Your task to perform on an android device: View the shopping cart on target.com. Add usb-c to usb-a to the cart on target.com, then select checkout. Image 0: 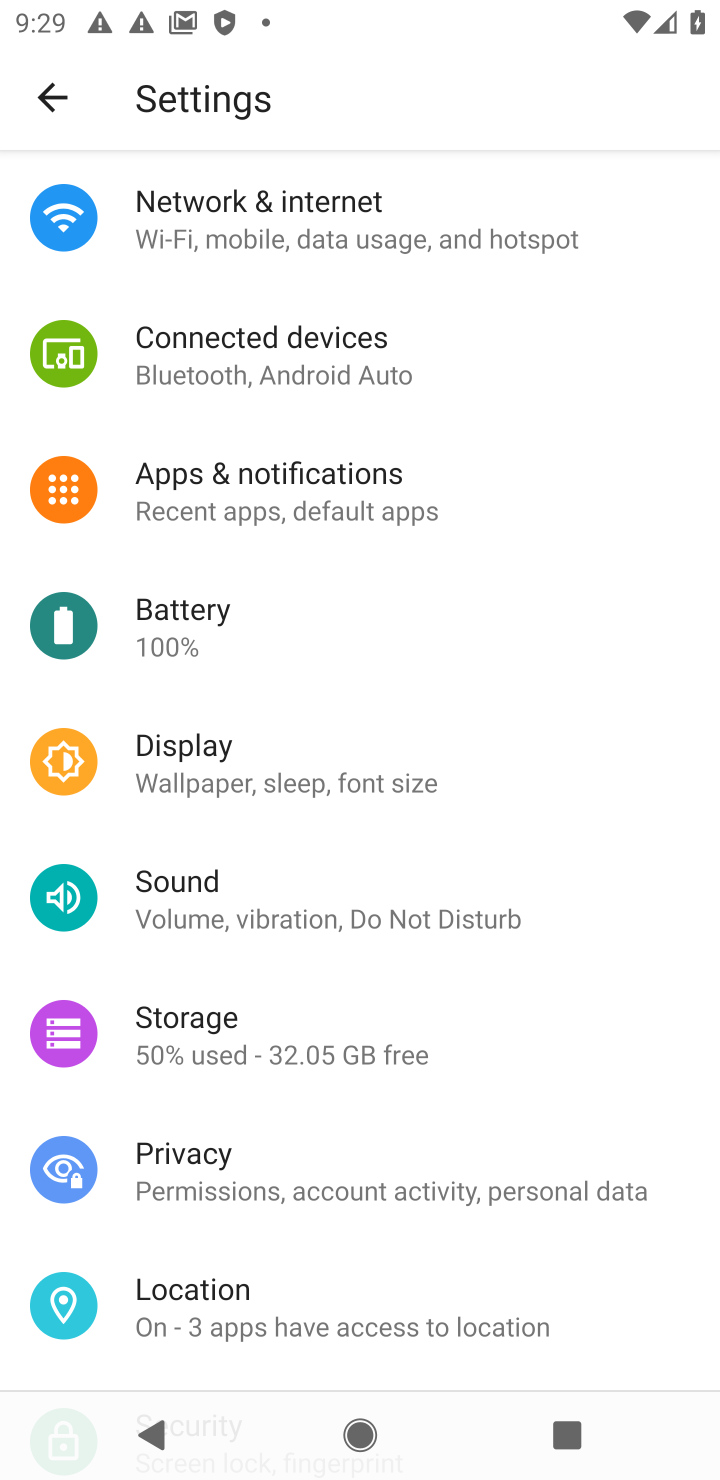
Step 0: press home button
Your task to perform on an android device: View the shopping cart on target.com. Add usb-c to usb-a to the cart on target.com, then select checkout. Image 1: 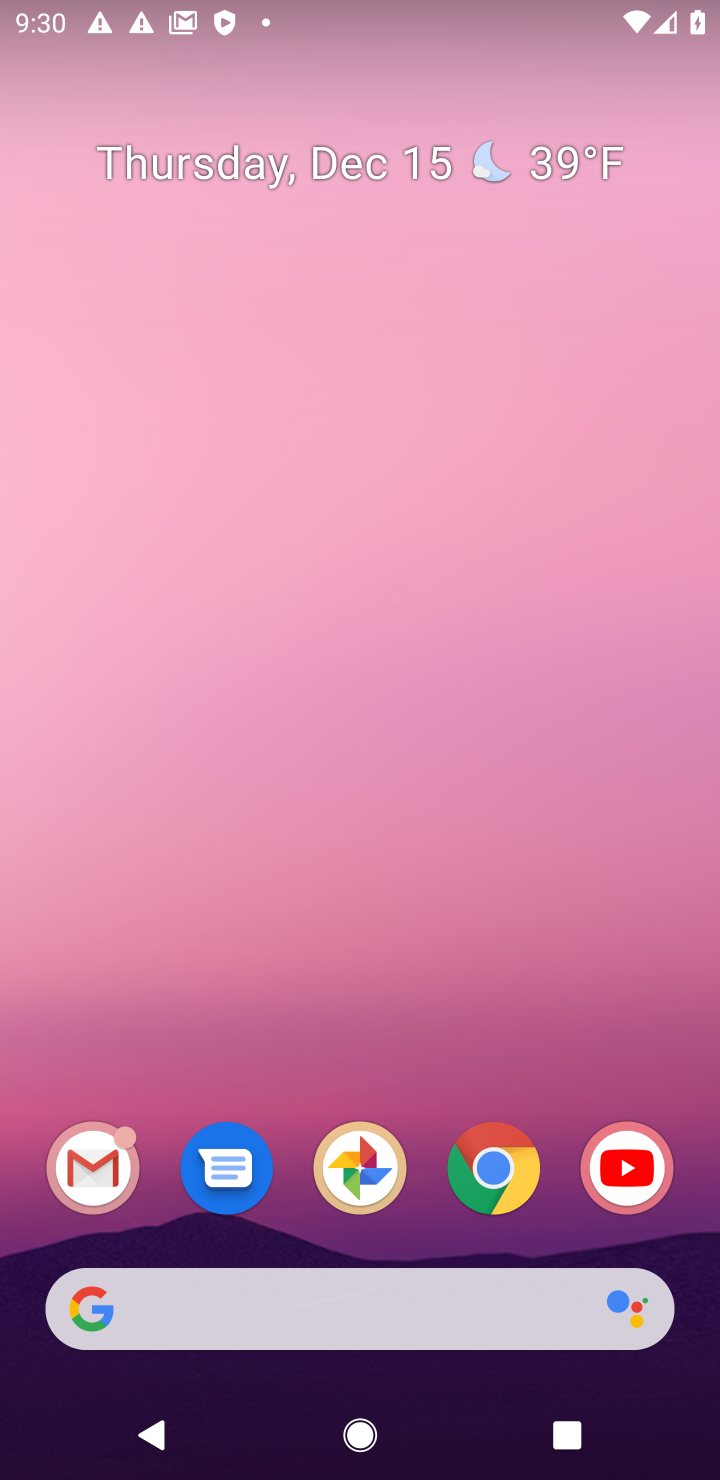
Step 1: click (519, 1159)
Your task to perform on an android device: View the shopping cart on target.com. Add usb-c to usb-a to the cart on target.com, then select checkout. Image 2: 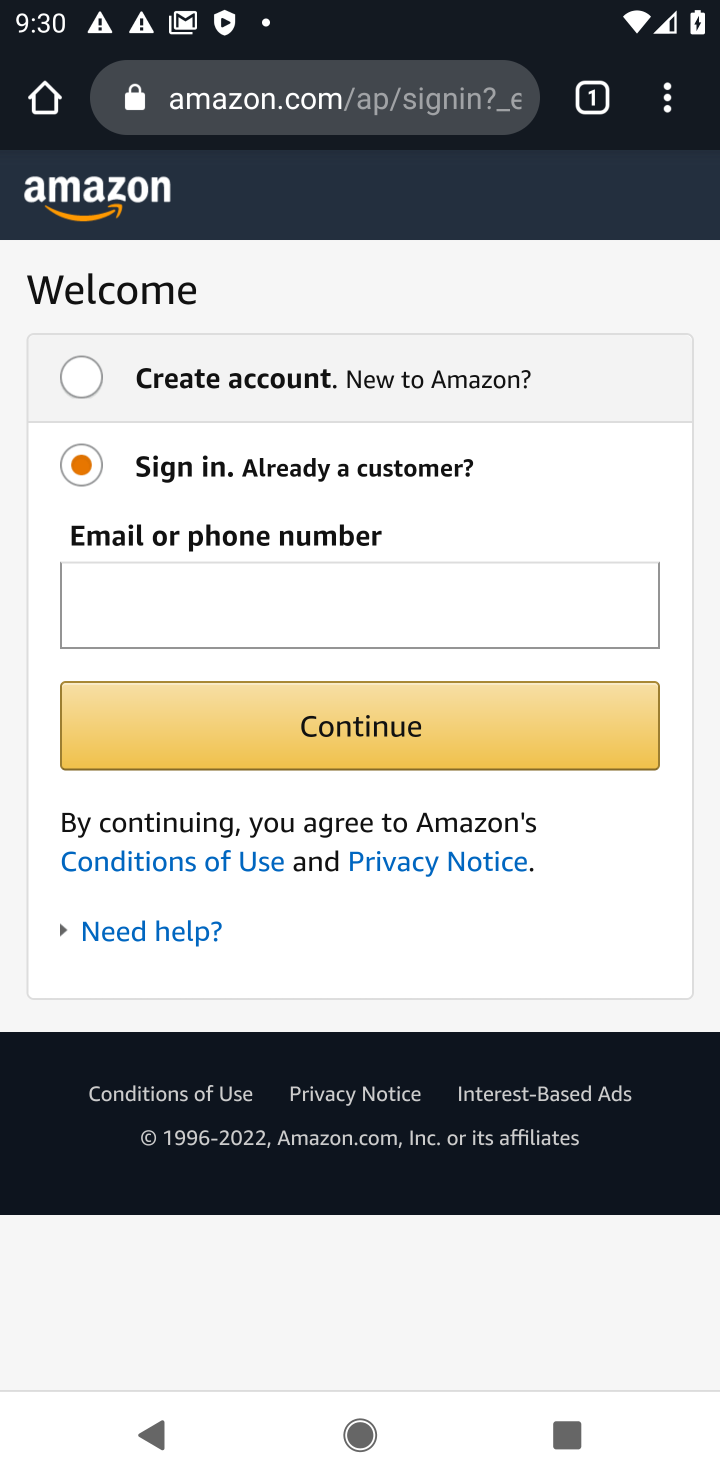
Step 2: click (393, 79)
Your task to perform on an android device: View the shopping cart on target.com. Add usb-c to usb-a to the cart on target.com, then select checkout. Image 3: 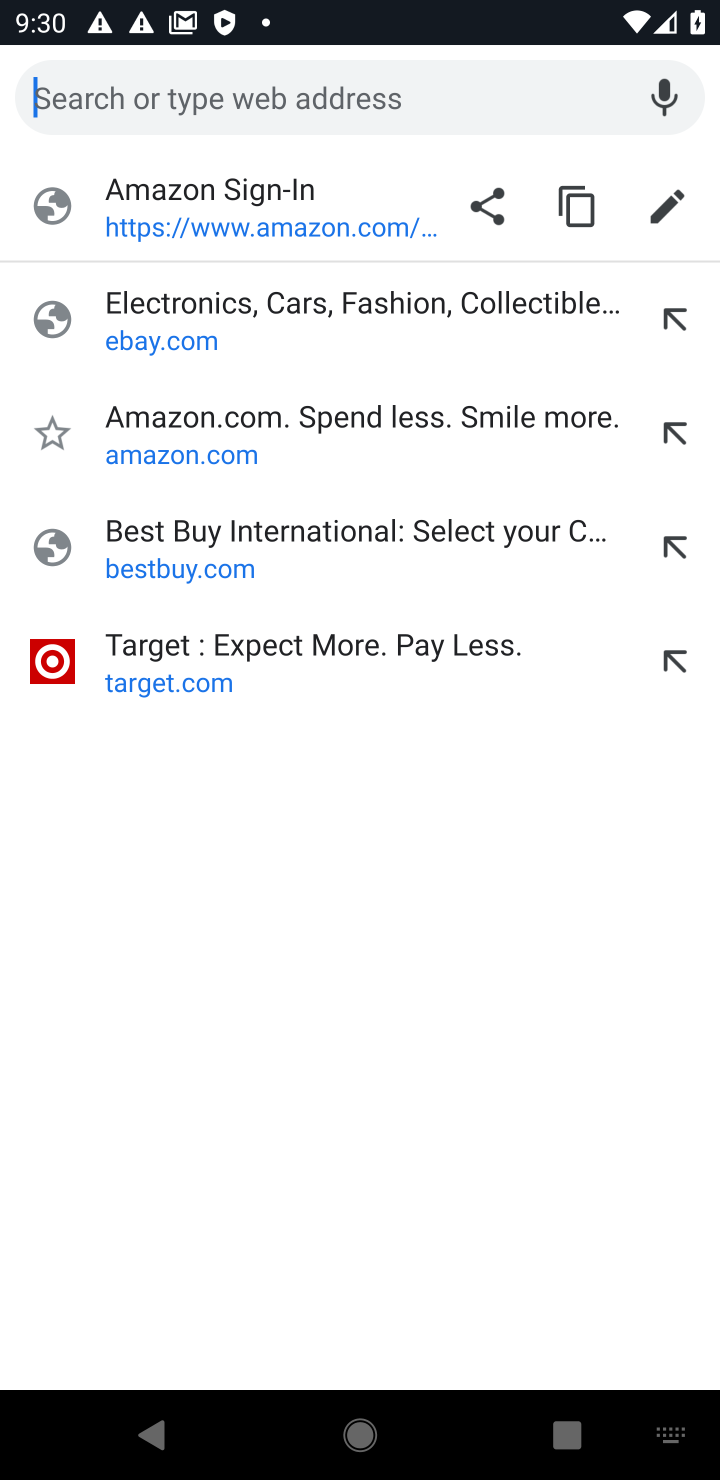
Step 3: click (325, 653)
Your task to perform on an android device: View the shopping cart on target.com. Add usb-c to usb-a to the cart on target.com, then select checkout. Image 4: 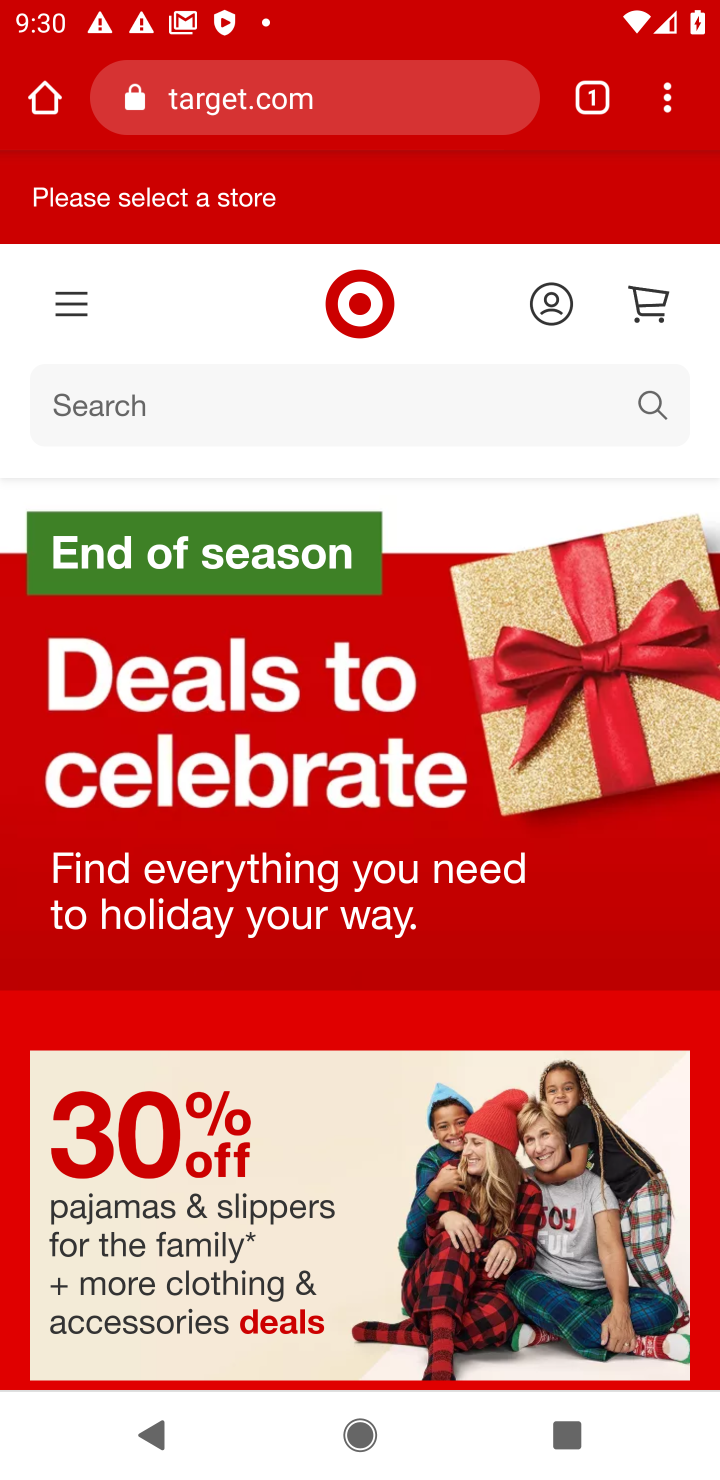
Step 4: click (379, 420)
Your task to perform on an android device: View the shopping cart on target.com. Add usb-c to usb-a to the cart on target.com, then select checkout. Image 5: 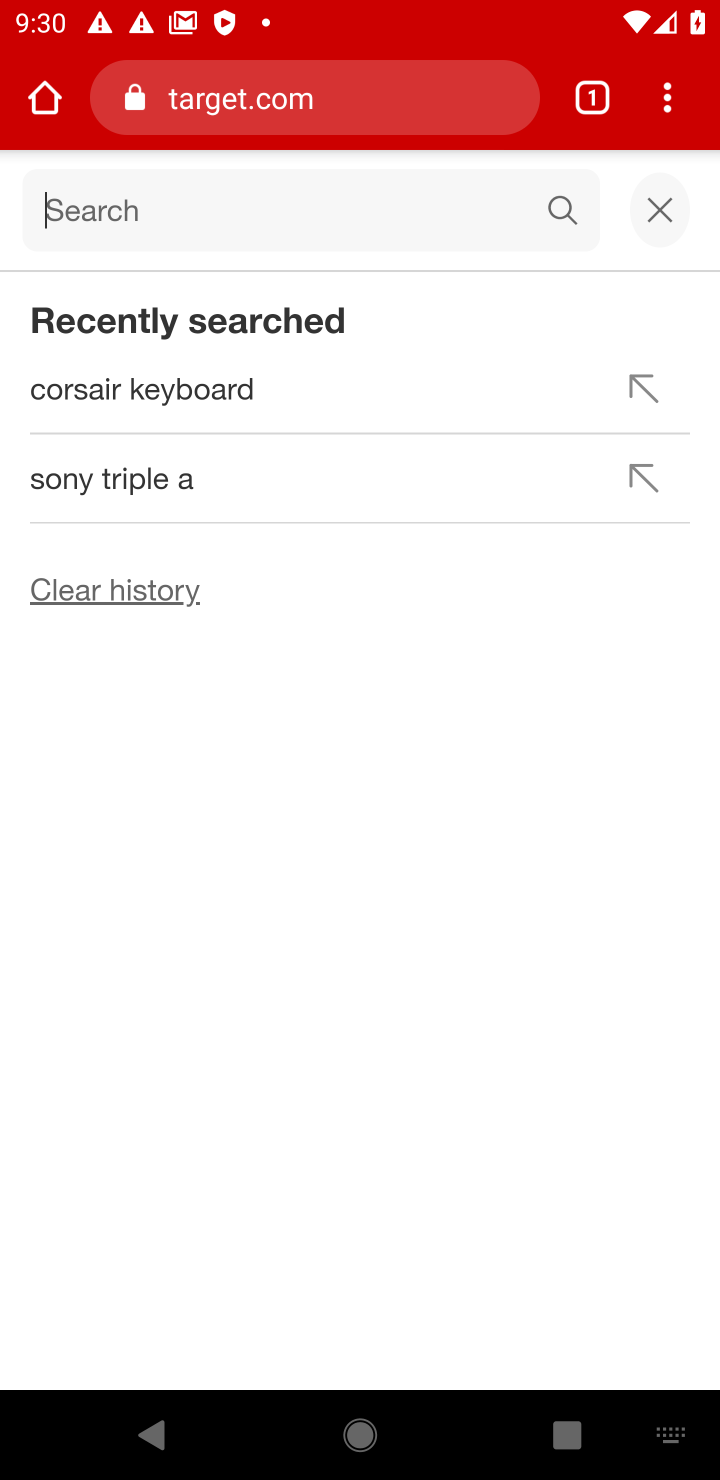
Step 5: type "usb-c to usb-a "
Your task to perform on an android device: View the shopping cart on target.com. Add usb-c to usb-a to the cart on target.com, then select checkout. Image 6: 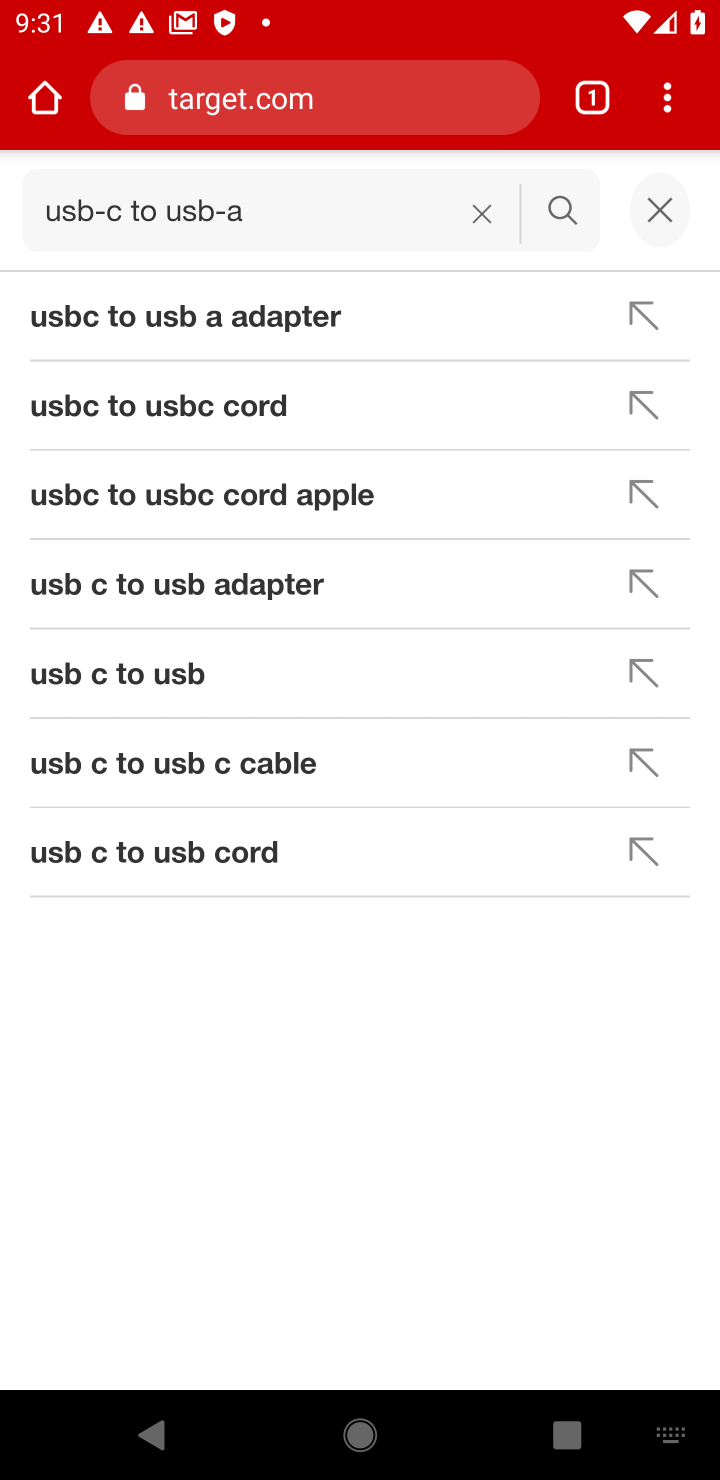
Step 6: click (257, 321)
Your task to perform on an android device: View the shopping cart on target.com. Add usb-c to usb-a to the cart on target.com, then select checkout. Image 7: 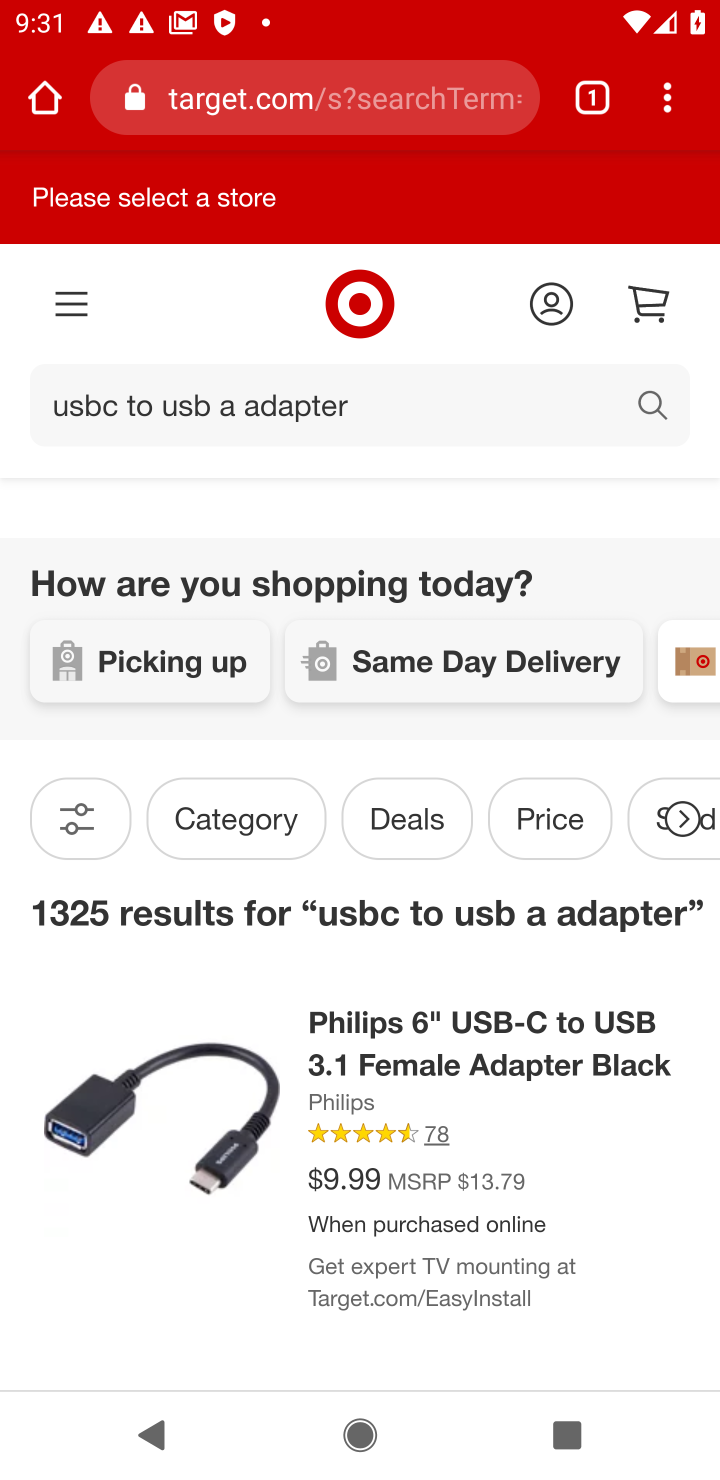
Step 7: click (517, 1079)
Your task to perform on an android device: View the shopping cart on target.com. Add usb-c to usb-a to the cart on target.com, then select checkout. Image 8: 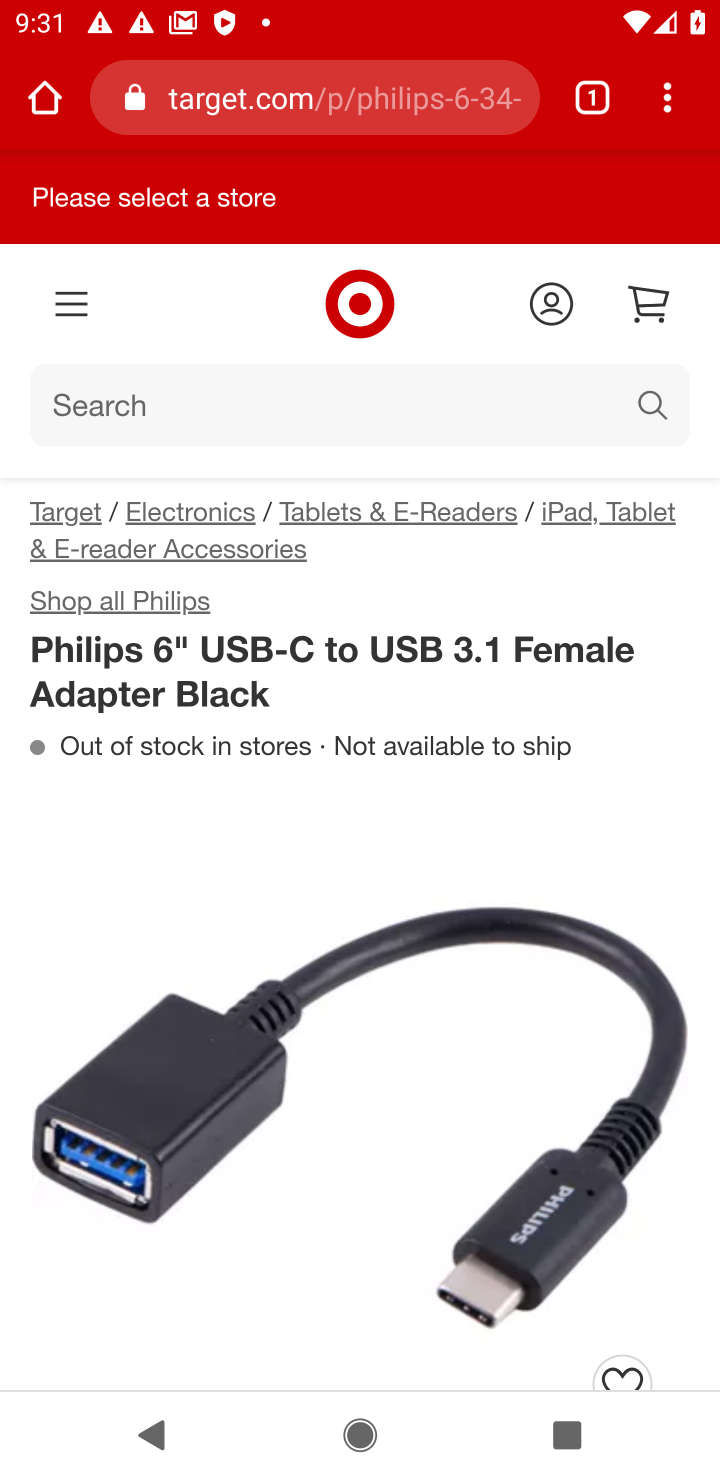
Step 8: drag from (529, 1167) to (493, 195)
Your task to perform on an android device: View the shopping cart on target.com. Add usb-c to usb-a to the cart on target.com, then select checkout. Image 9: 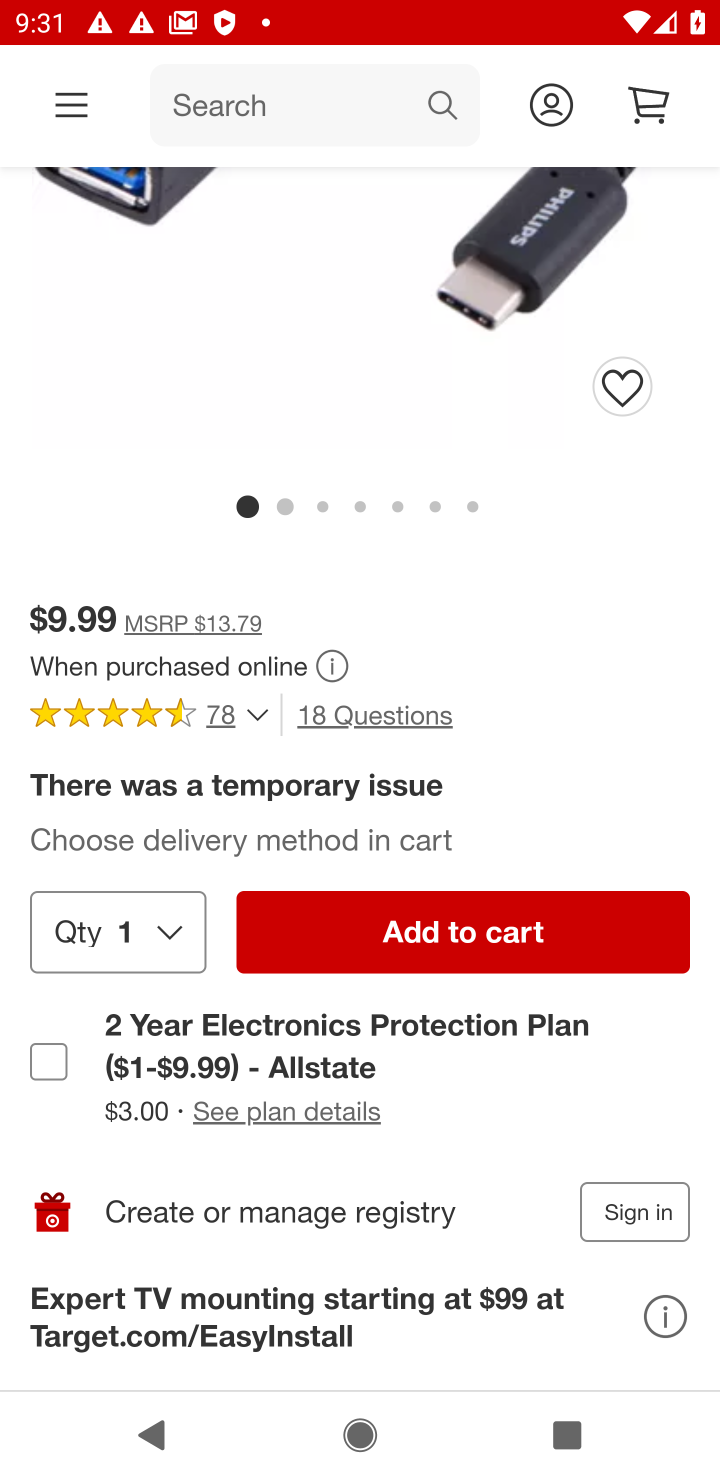
Step 9: click (487, 949)
Your task to perform on an android device: View the shopping cart on target.com. Add usb-c to usb-a to the cart on target.com, then select checkout. Image 10: 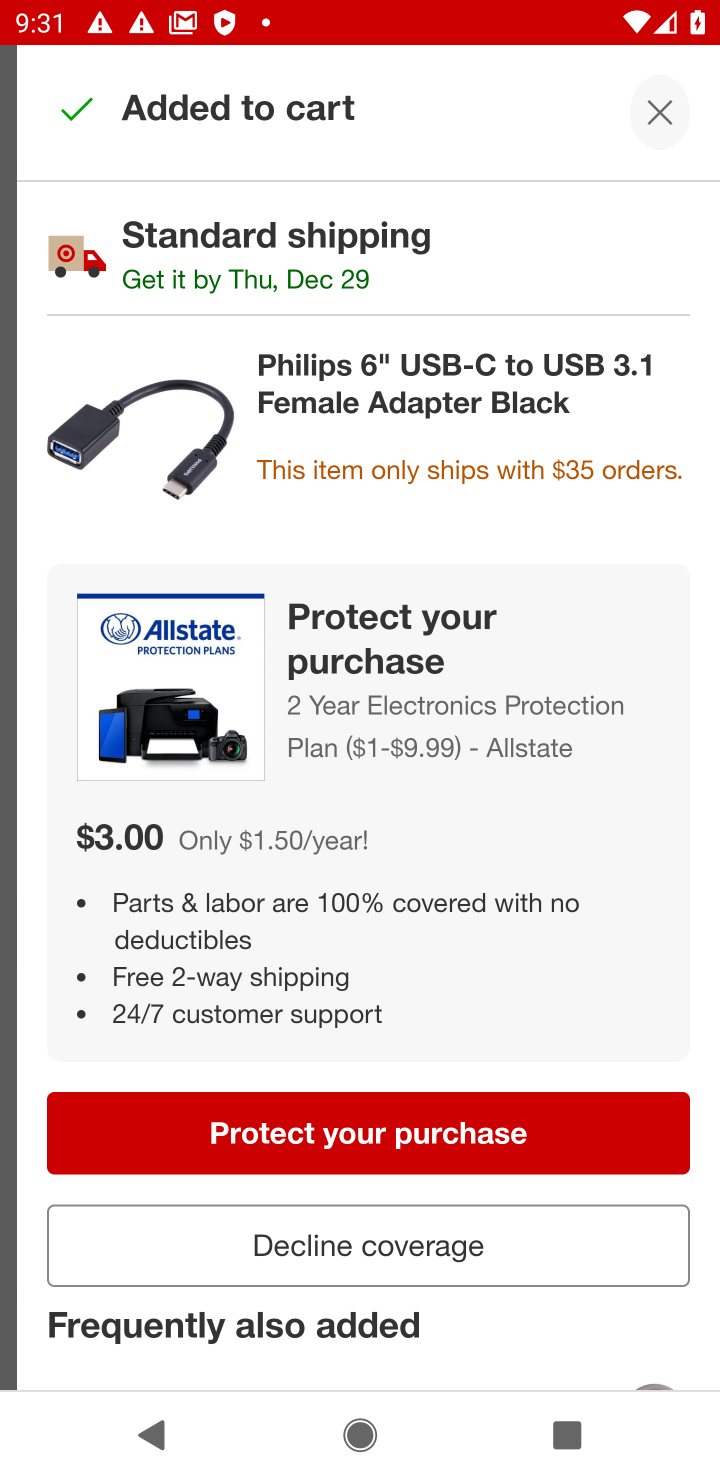
Step 10: click (371, 1241)
Your task to perform on an android device: View the shopping cart on target.com. Add usb-c to usb-a to the cart on target.com, then select checkout. Image 11: 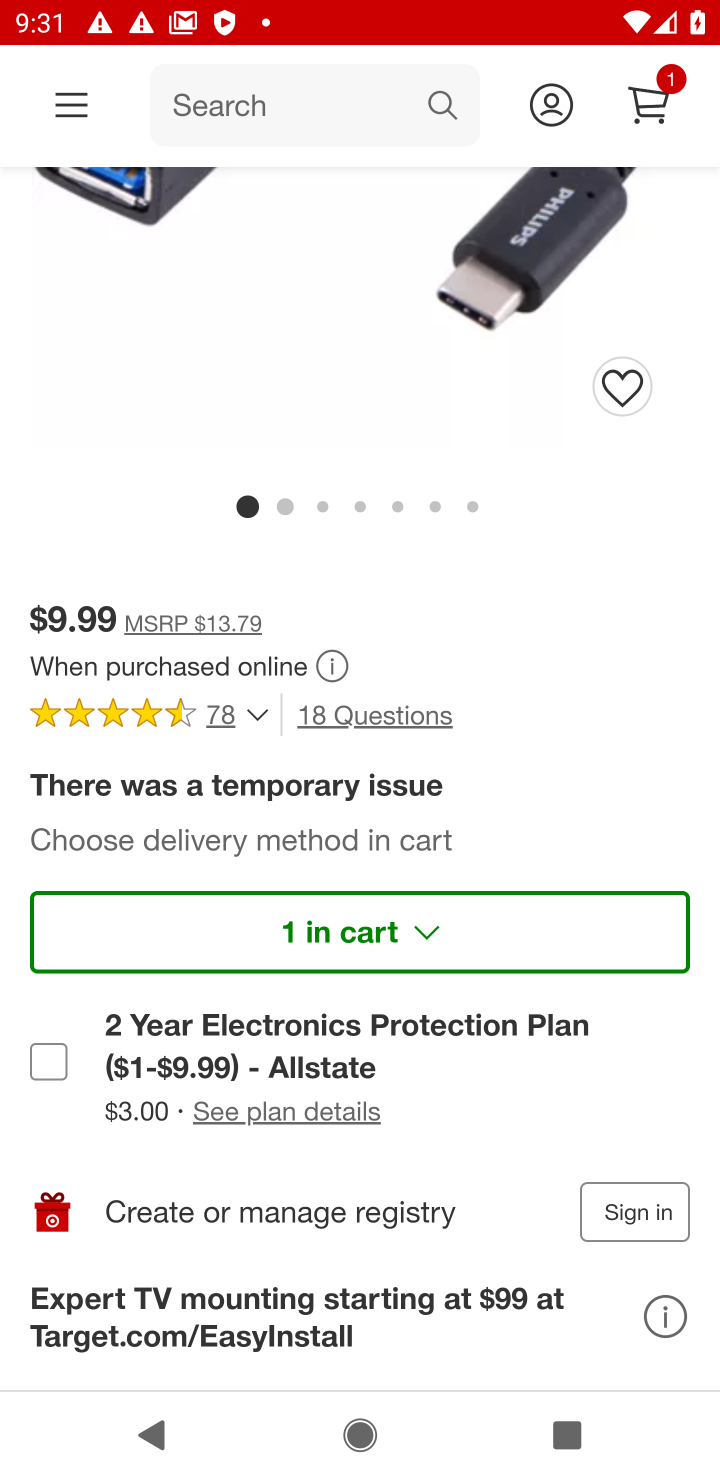
Step 11: click (654, 83)
Your task to perform on an android device: View the shopping cart on target.com. Add usb-c to usb-a to the cart on target.com, then select checkout. Image 12: 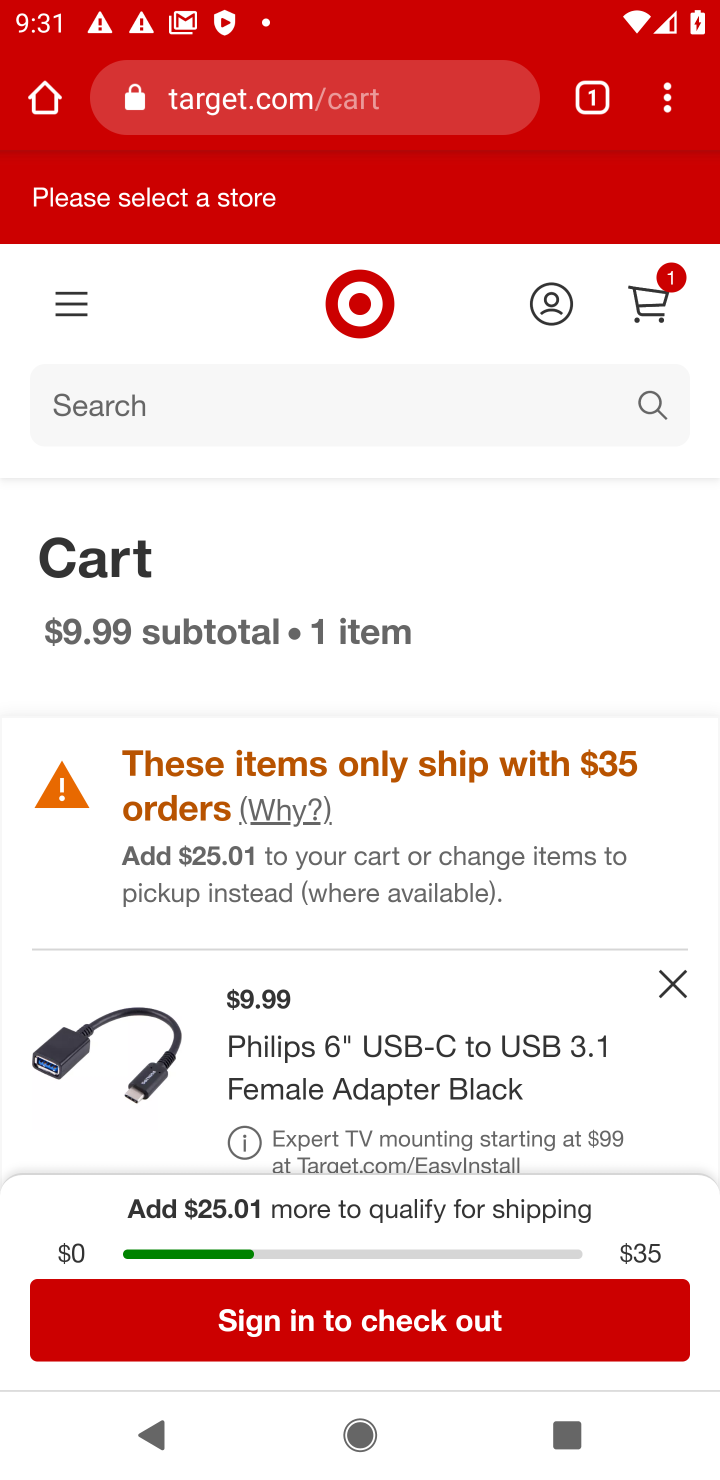
Step 12: click (416, 1306)
Your task to perform on an android device: View the shopping cart on target.com. Add usb-c to usb-a to the cart on target.com, then select checkout. Image 13: 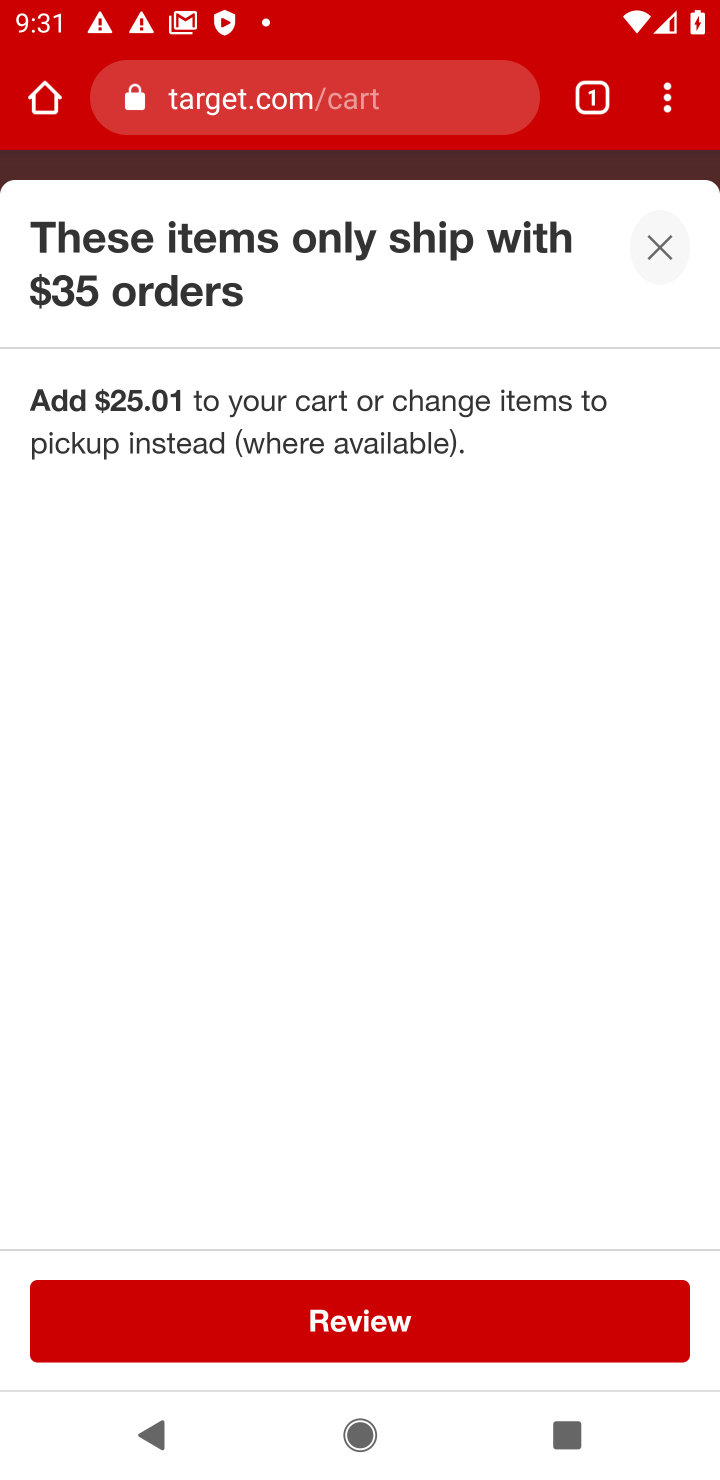
Step 13: task complete